Your task to perform on an android device: How much does a 2 bedroom apartment rent for in Houston? Image 0: 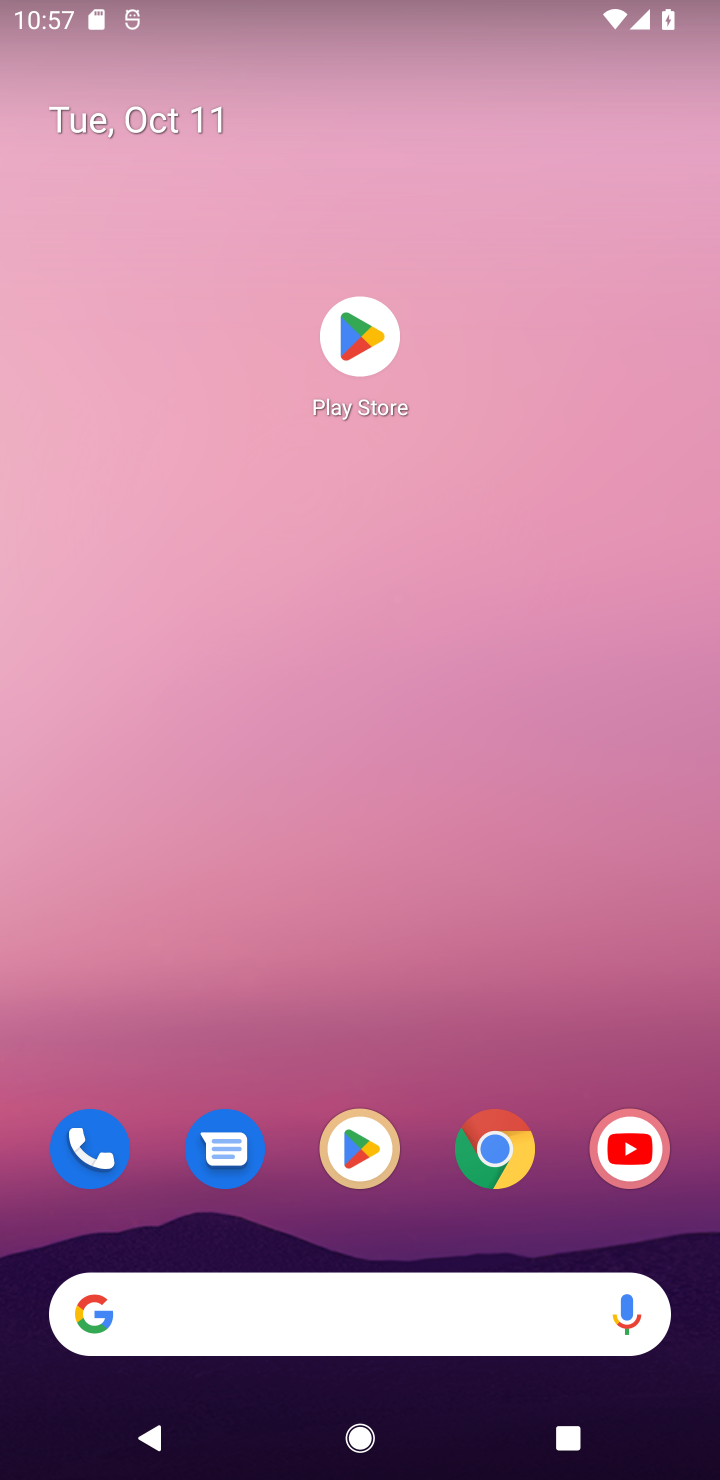
Step 0: drag from (361, 1094) to (453, 253)
Your task to perform on an android device: How much does a 2 bedroom apartment rent for in Houston? Image 1: 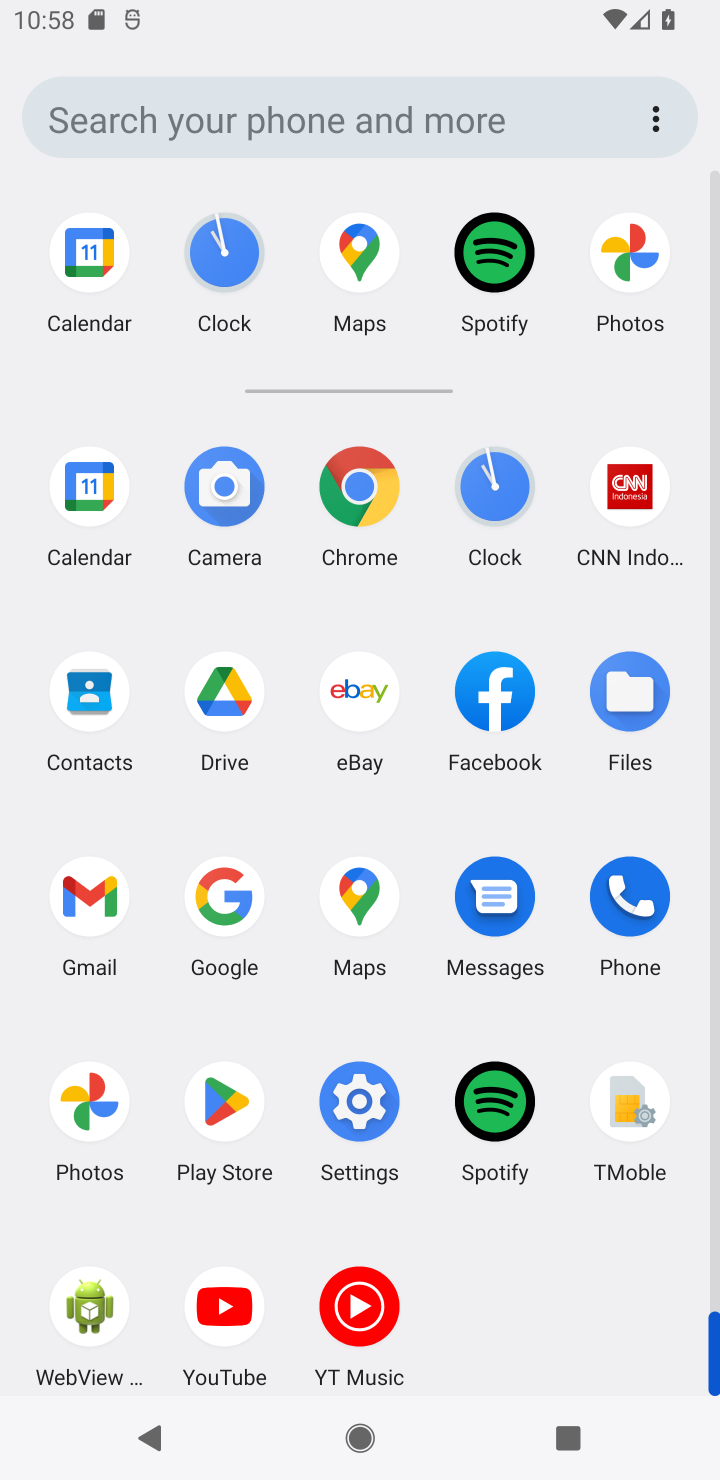
Step 1: click (190, 882)
Your task to perform on an android device: How much does a 2 bedroom apartment rent for in Houston? Image 2: 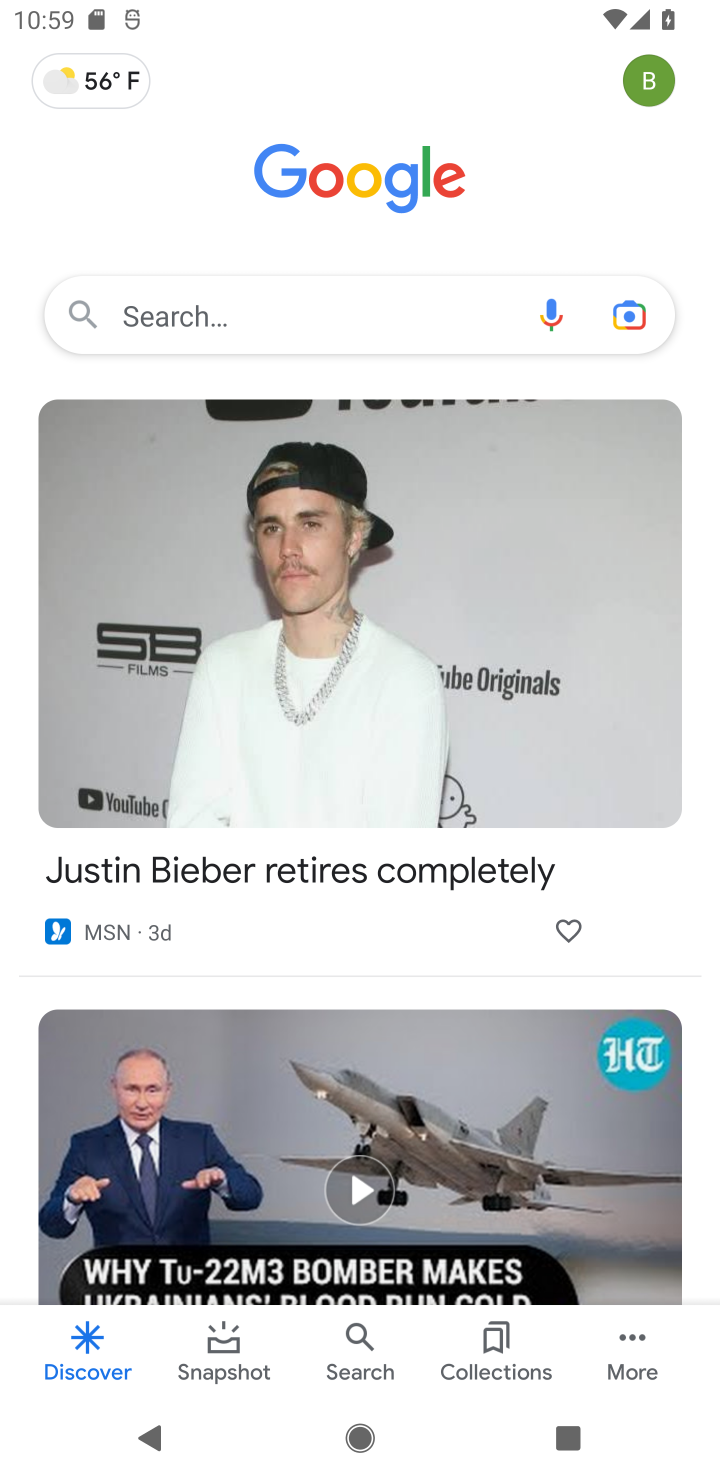
Step 2: click (240, 283)
Your task to perform on an android device: How much does a 2 bedroom apartment rent for in Houston? Image 3: 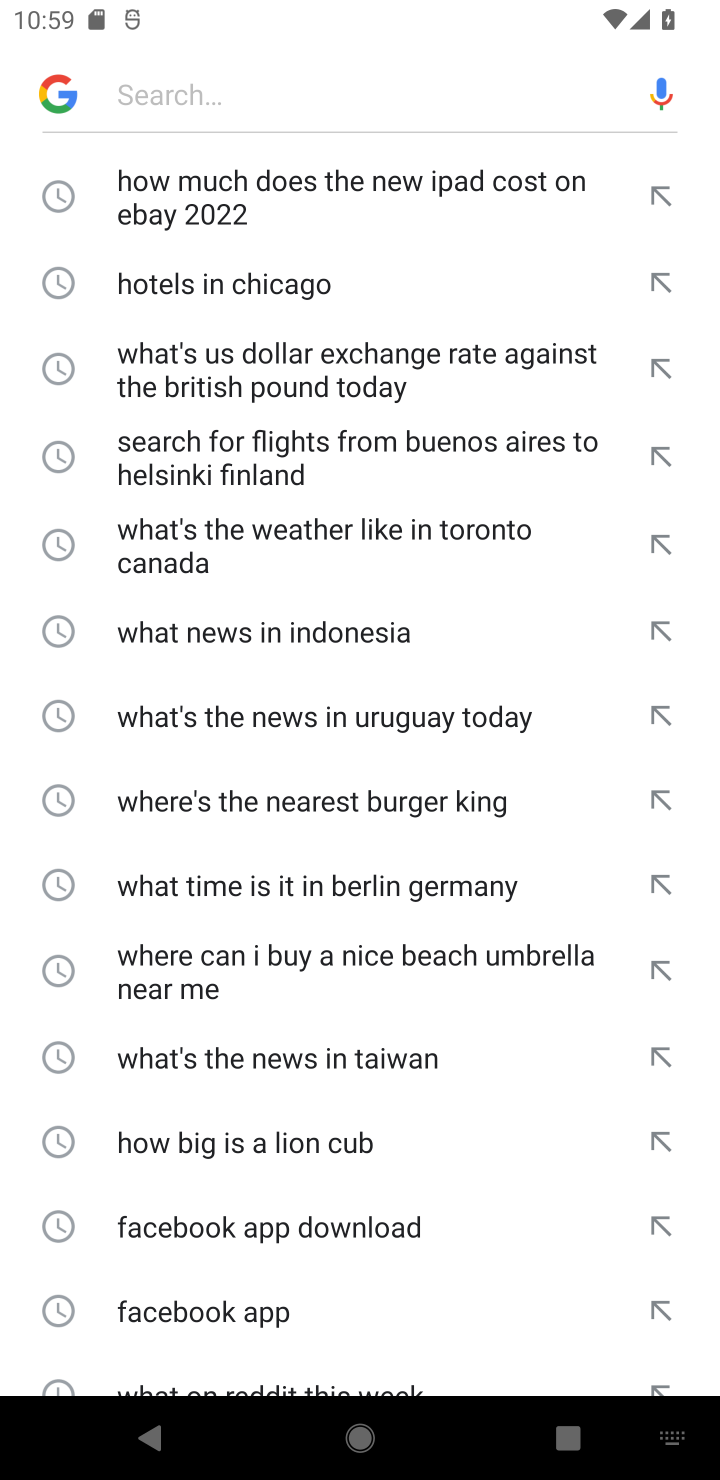
Step 3: type "How much does a 2 bedroom apartment rent for in Houston?"
Your task to perform on an android device: How much does a 2 bedroom apartment rent for in Houston? Image 4: 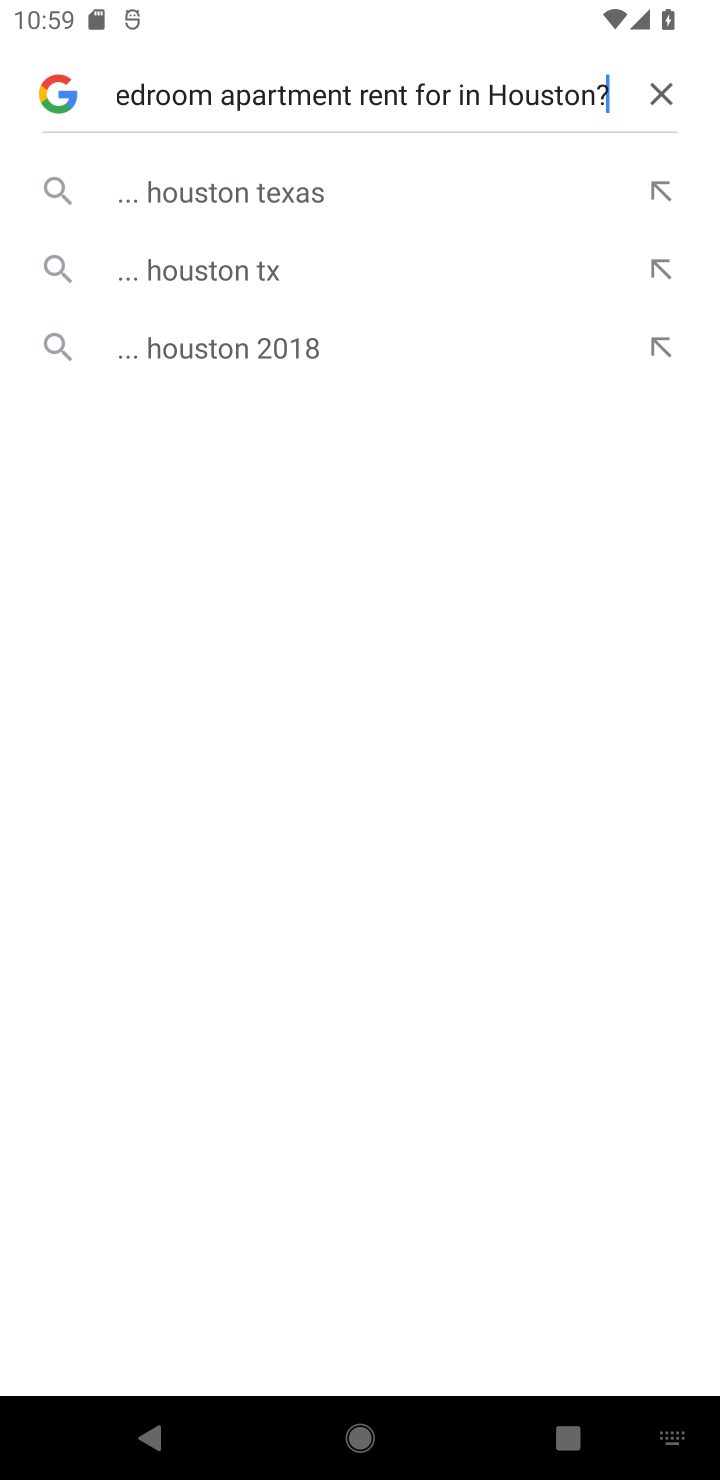
Step 4: click (281, 199)
Your task to perform on an android device: How much does a 2 bedroom apartment rent for in Houston? Image 5: 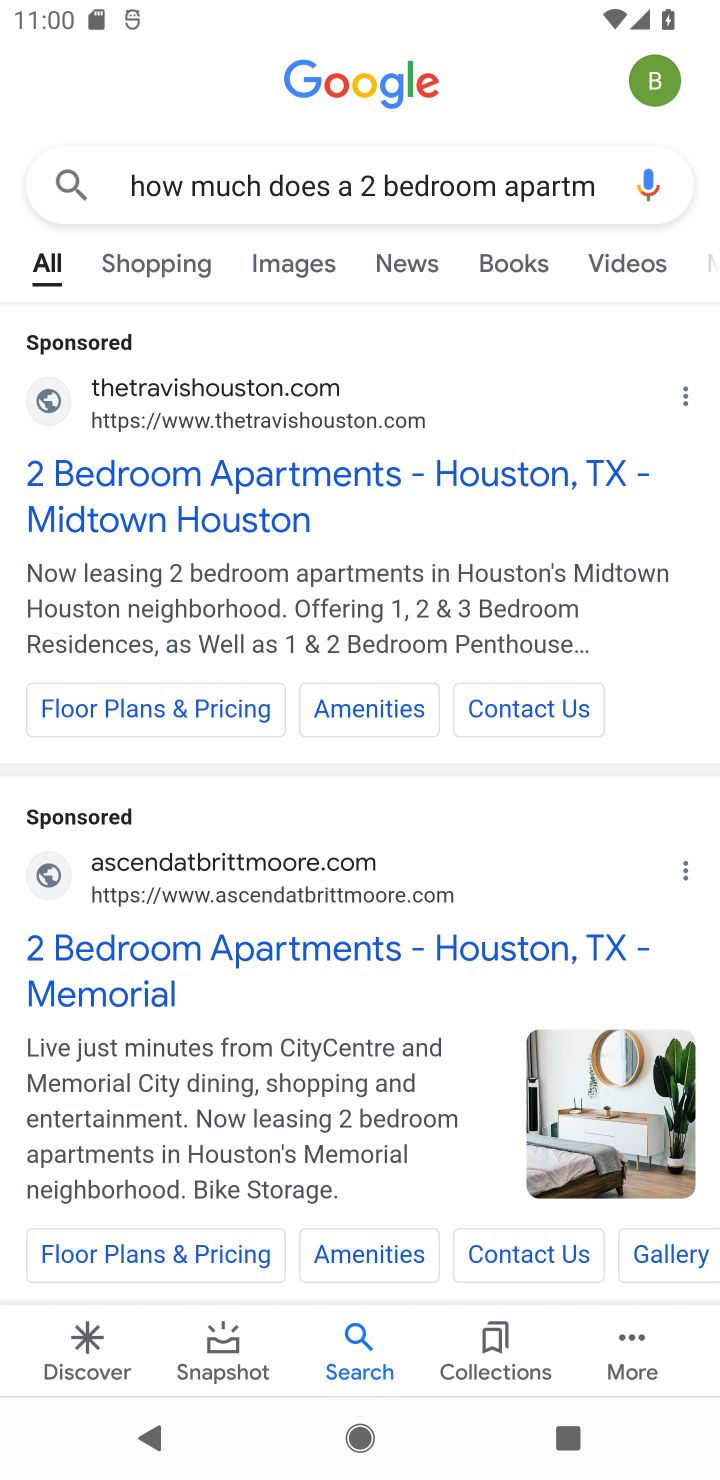
Step 5: task complete